Your task to perform on an android device: Check the settings for the Facebook app Image 0: 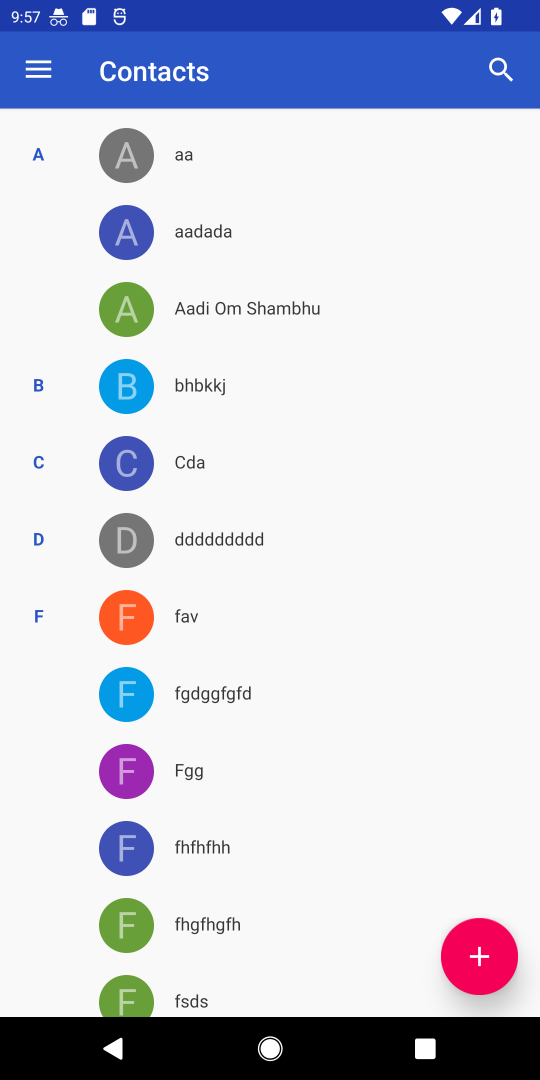
Step 0: press home button
Your task to perform on an android device: Check the settings for the Facebook app Image 1: 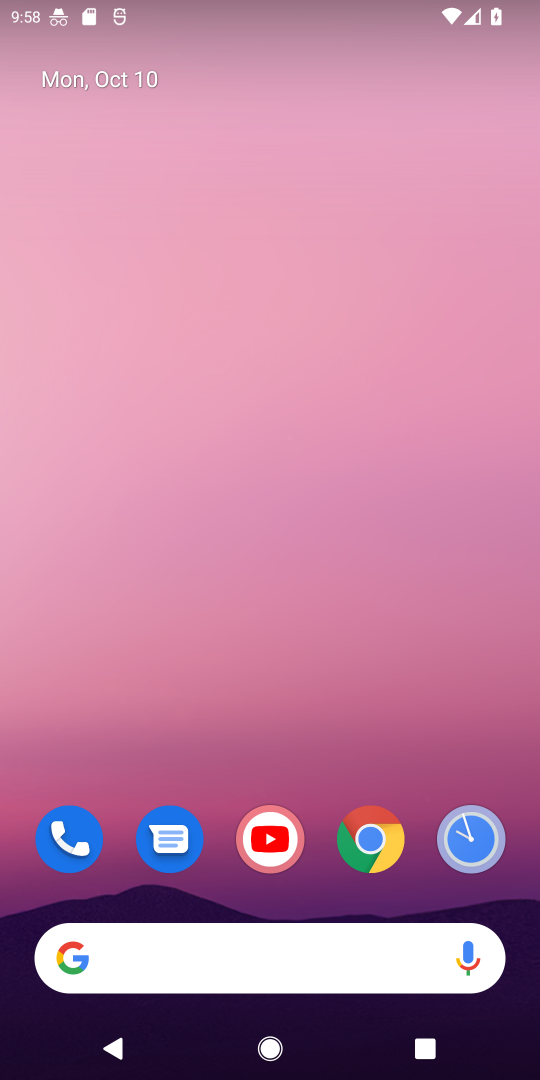
Step 1: task complete